Your task to perform on an android device: Search for "razer huntsman" on walmart.com, select the first entry, and add it to the cart. Image 0: 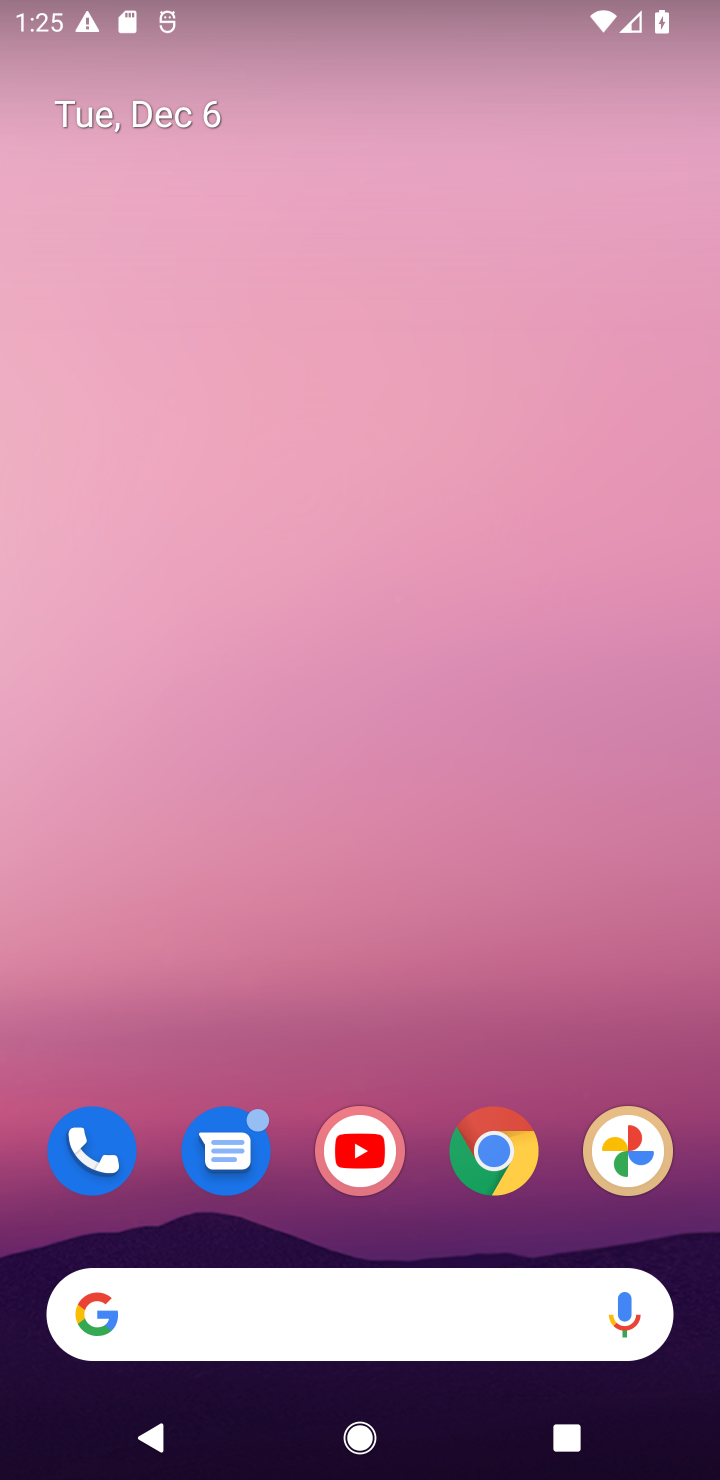
Step 0: click (493, 1161)
Your task to perform on an android device: Search for "razer huntsman" on walmart.com, select the first entry, and add it to the cart. Image 1: 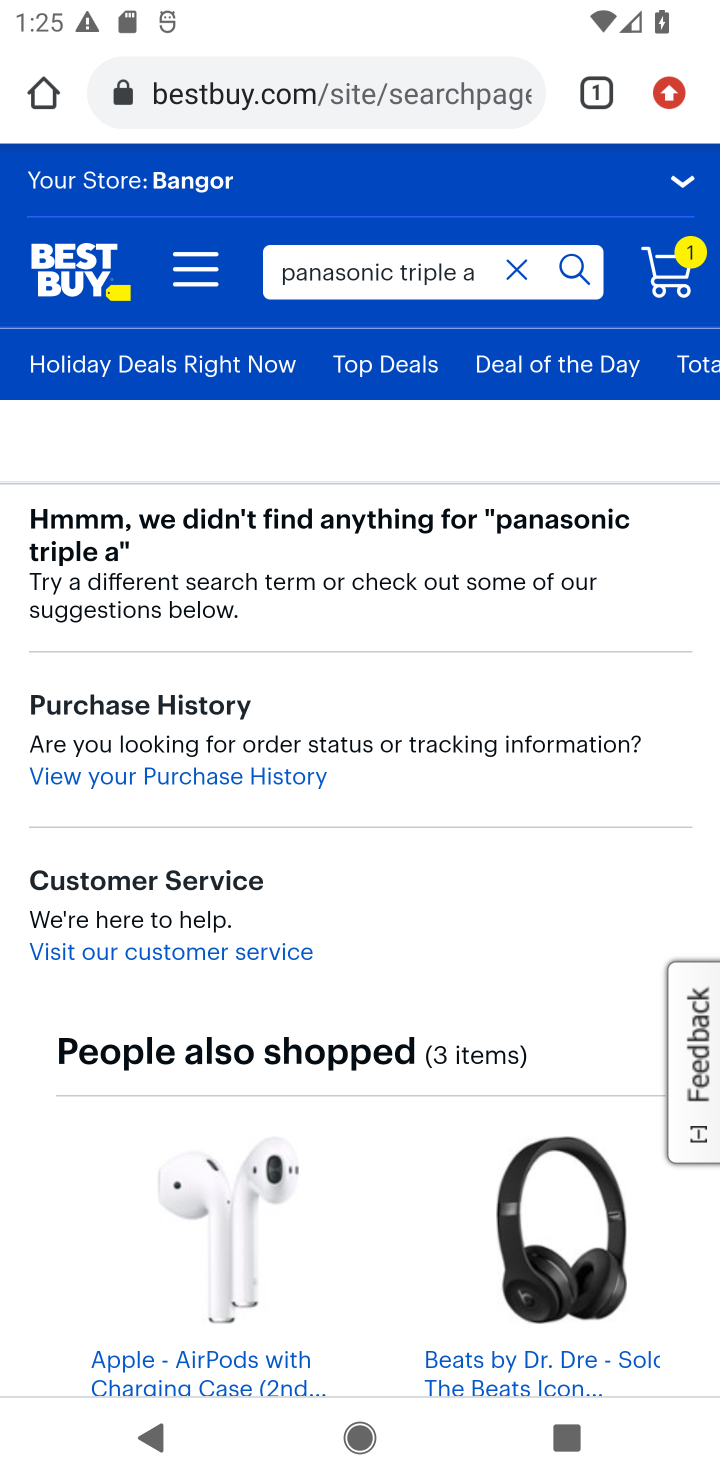
Step 1: click (298, 105)
Your task to perform on an android device: Search for "razer huntsman" on walmart.com, select the first entry, and add it to the cart. Image 2: 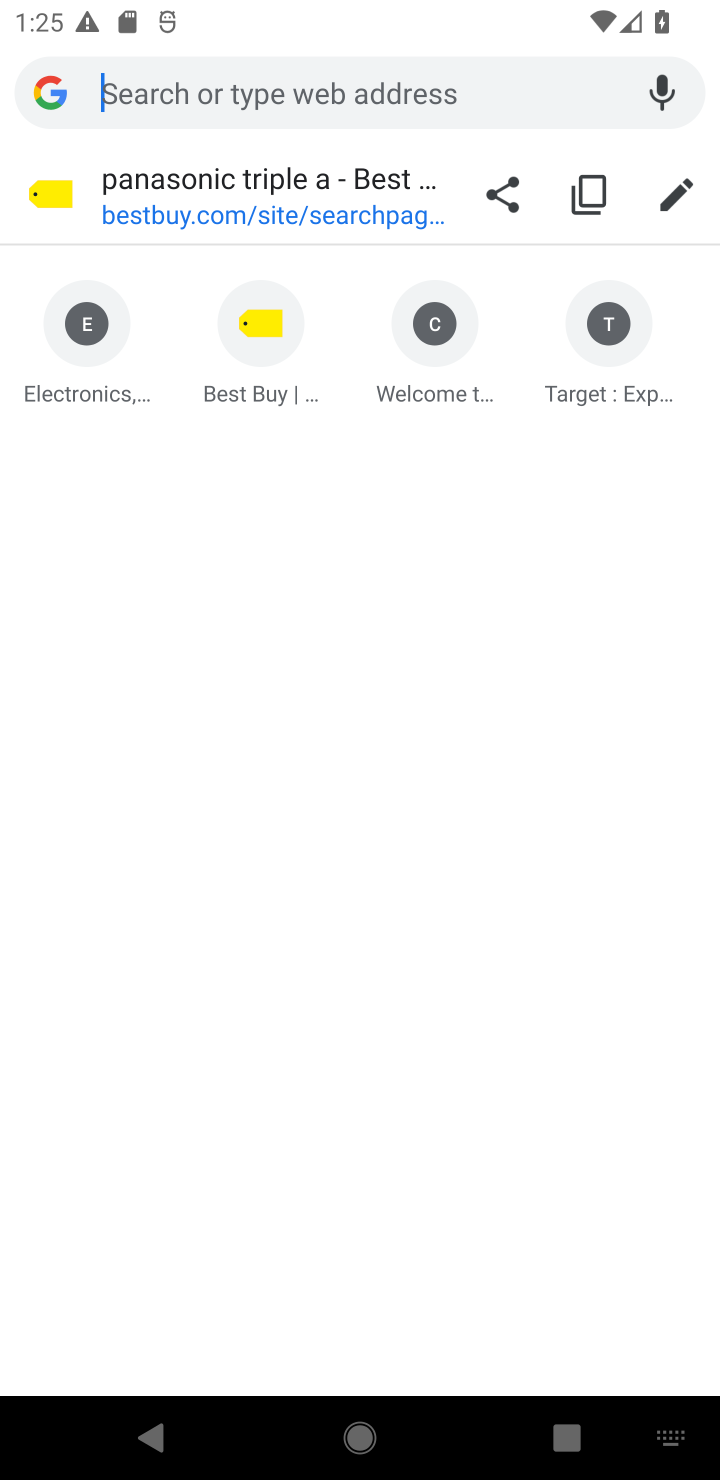
Step 2: type "walmart.com"
Your task to perform on an android device: Search for "razer huntsman" on walmart.com, select the first entry, and add it to the cart. Image 3: 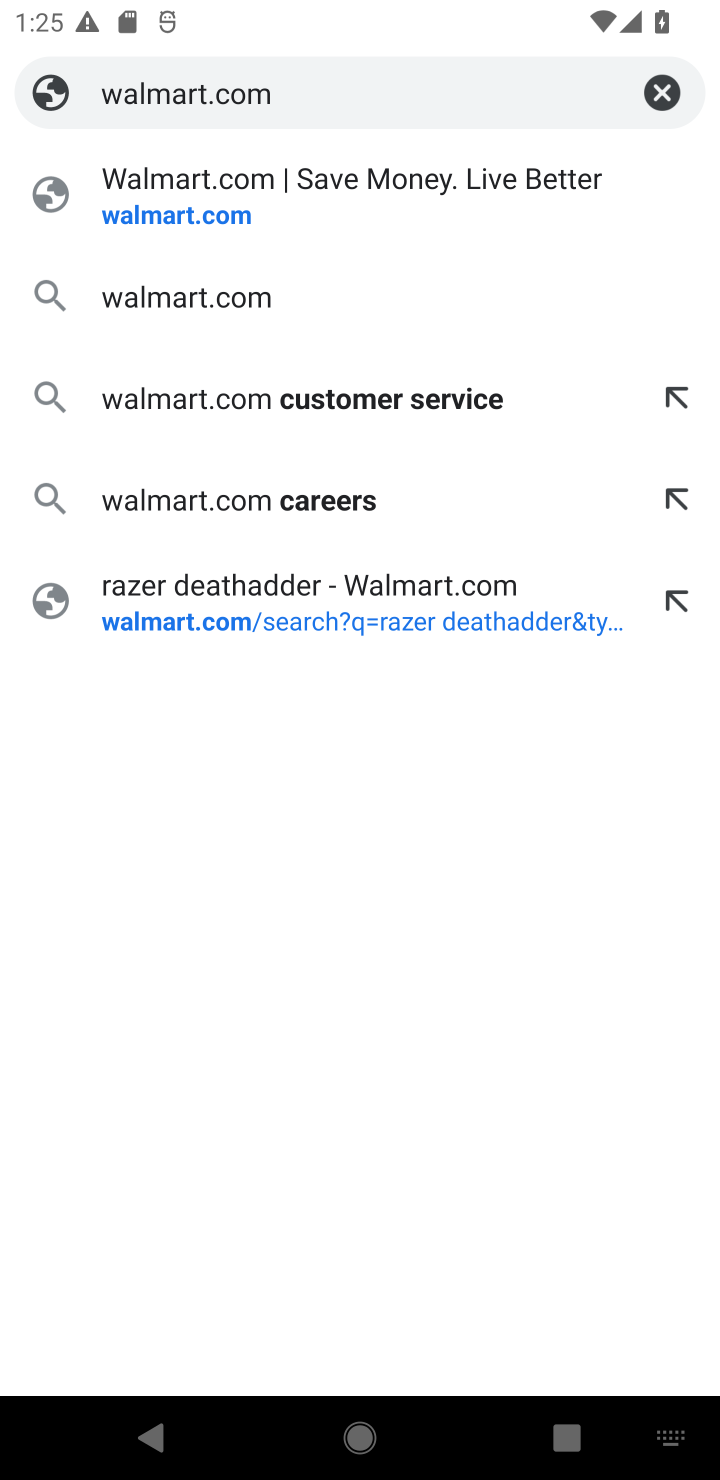
Step 3: click (155, 221)
Your task to perform on an android device: Search for "razer huntsman" on walmart.com, select the first entry, and add it to the cart. Image 4: 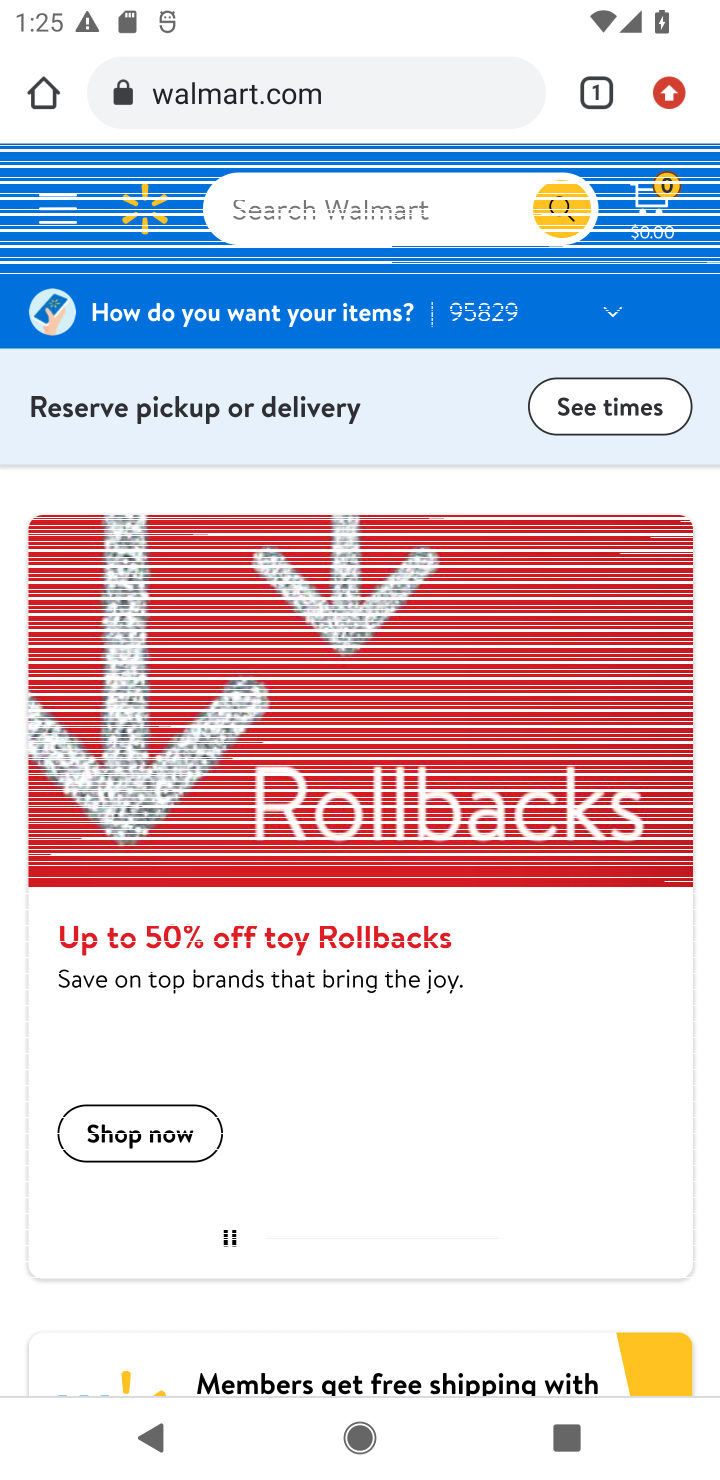
Step 4: click (260, 197)
Your task to perform on an android device: Search for "razer huntsman" on walmart.com, select the first entry, and add it to the cart. Image 5: 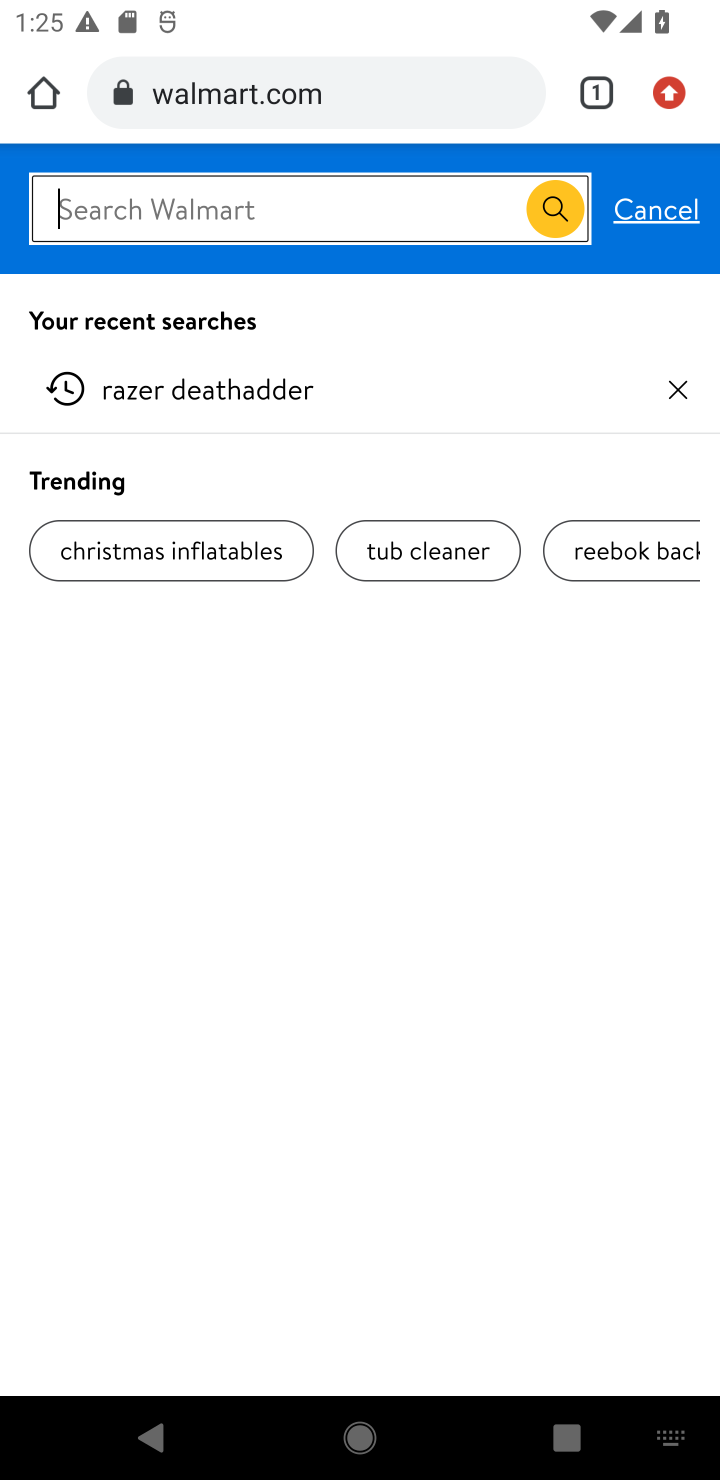
Step 5: type "razer huntsman"
Your task to perform on an android device: Search for "razer huntsman" on walmart.com, select the first entry, and add it to the cart. Image 6: 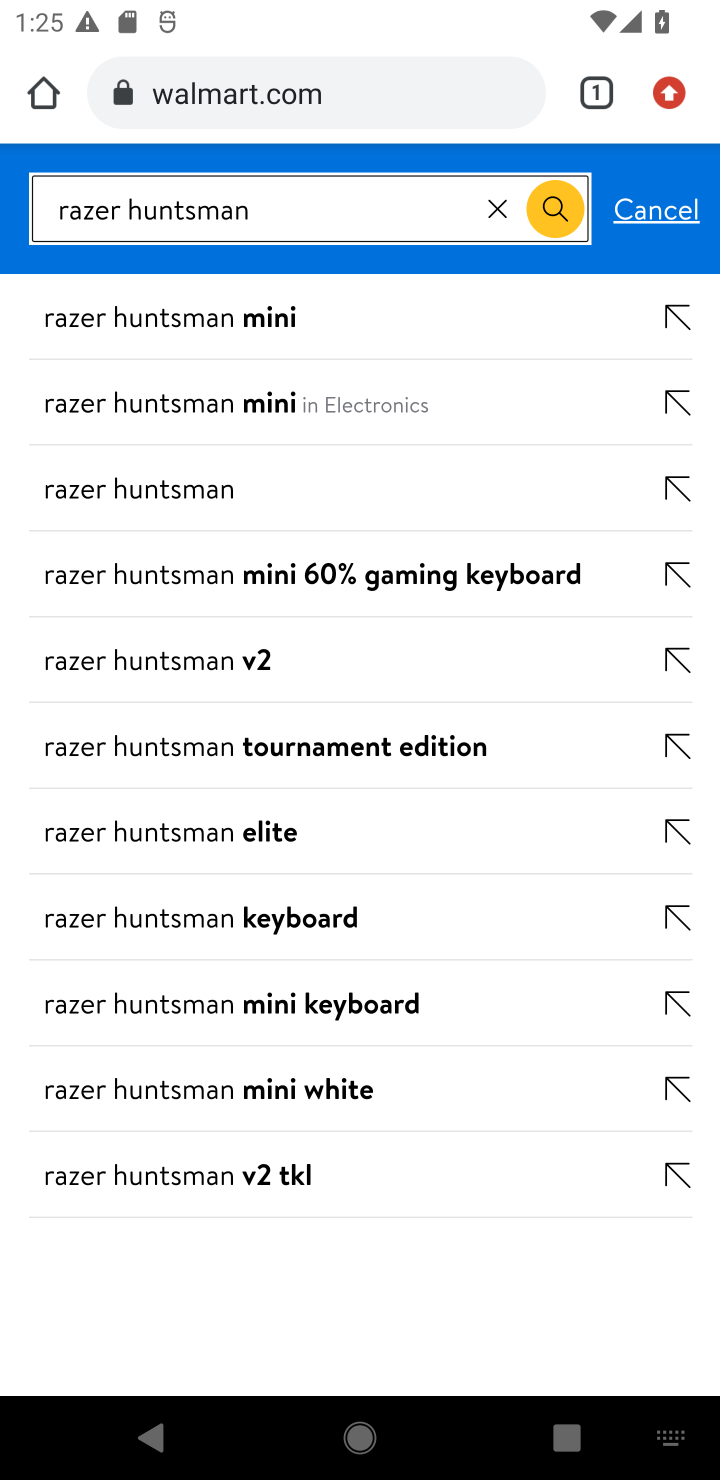
Step 6: click (154, 494)
Your task to perform on an android device: Search for "razer huntsman" on walmart.com, select the first entry, and add it to the cart. Image 7: 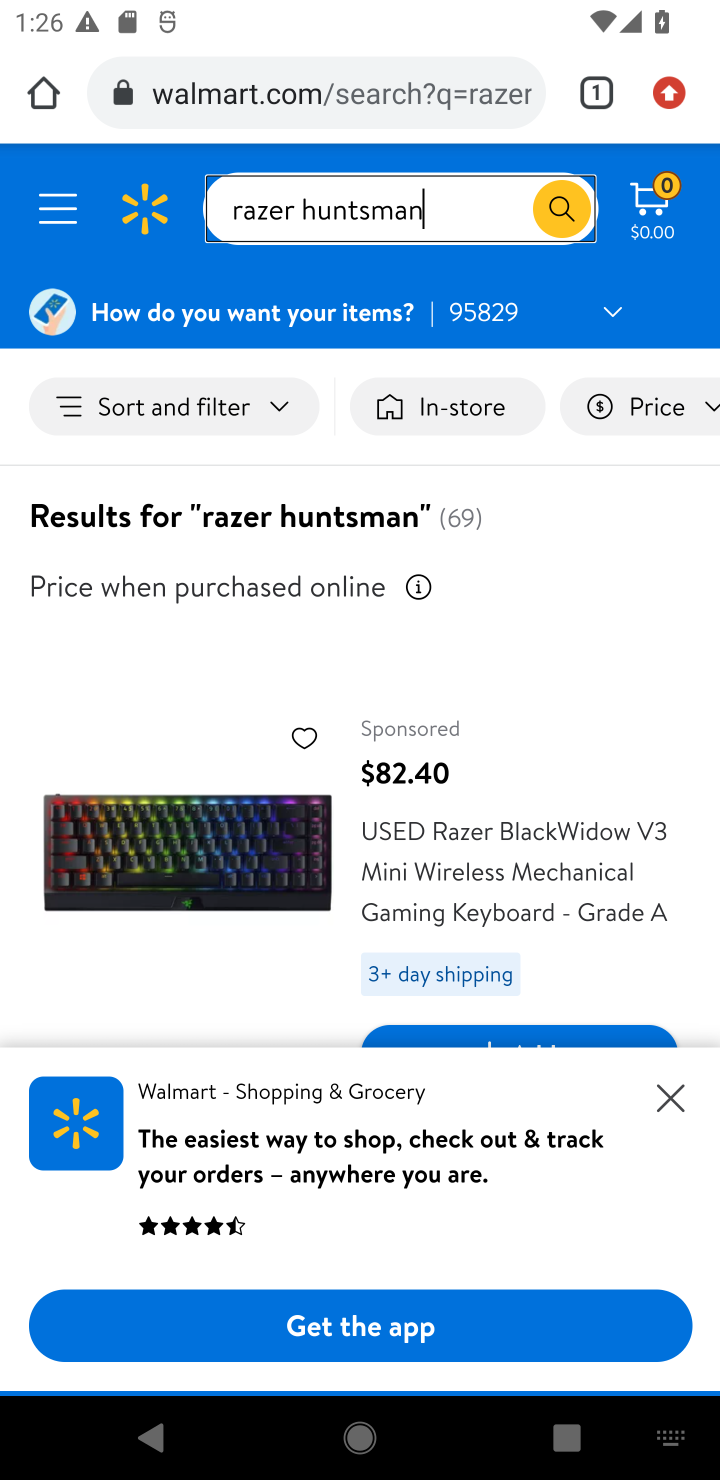
Step 7: task complete